Your task to perform on an android device: Go to Google Image 0: 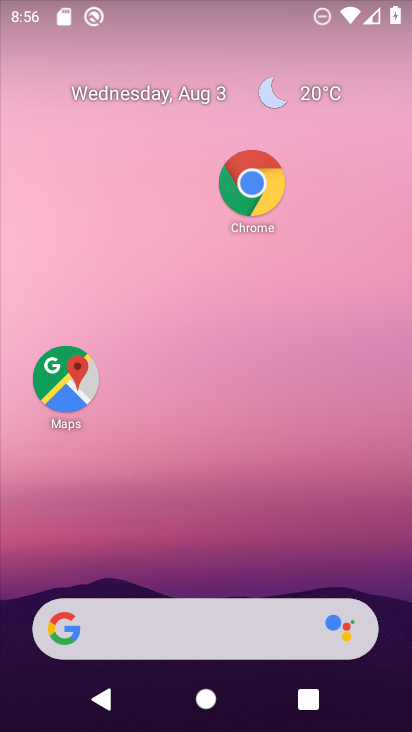
Step 0: click (189, 645)
Your task to perform on an android device: Go to Google Image 1: 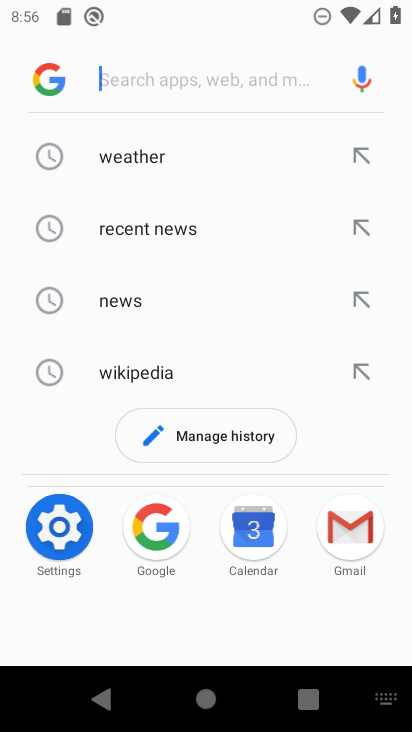
Step 1: task complete